Your task to perform on an android device: turn on showing notifications on the lock screen Image 0: 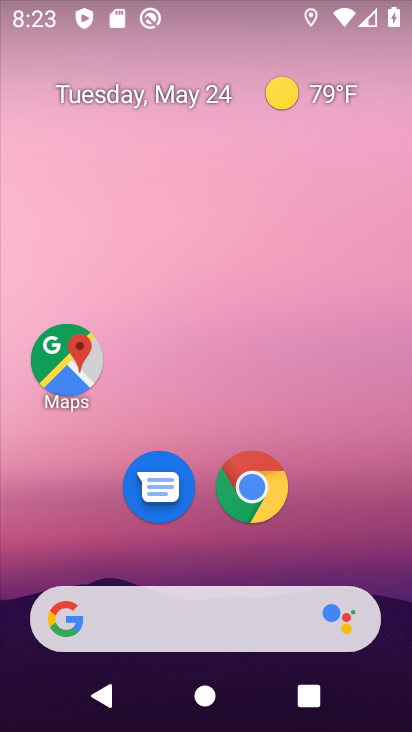
Step 0: drag from (309, 538) to (337, 146)
Your task to perform on an android device: turn on showing notifications on the lock screen Image 1: 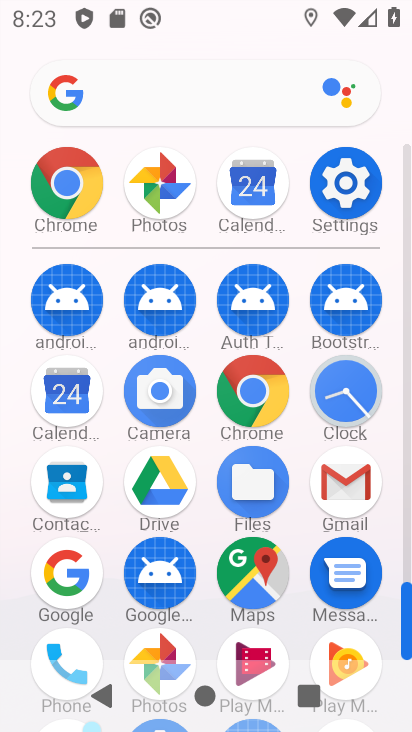
Step 1: click (362, 178)
Your task to perform on an android device: turn on showing notifications on the lock screen Image 2: 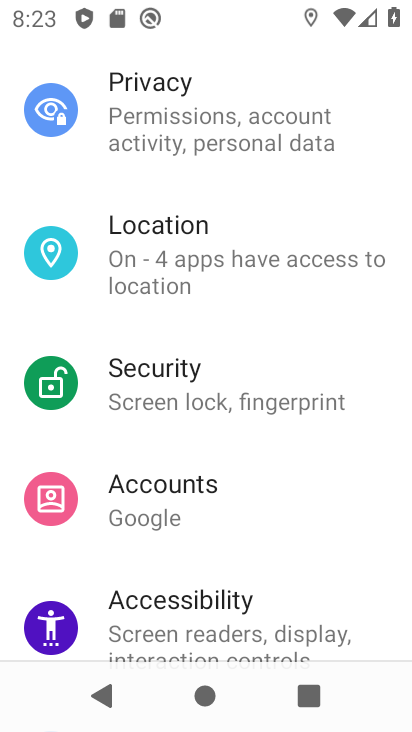
Step 2: drag from (316, 155) to (260, 587)
Your task to perform on an android device: turn on showing notifications on the lock screen Image 3: 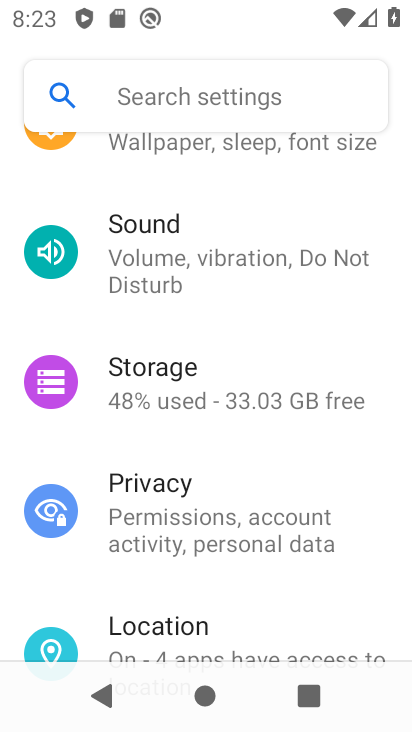
Step 3: drag from (310, 222) to (250, 602)
Your task to perform on an android device: turn on showing notifications on the lock screen Image 4: 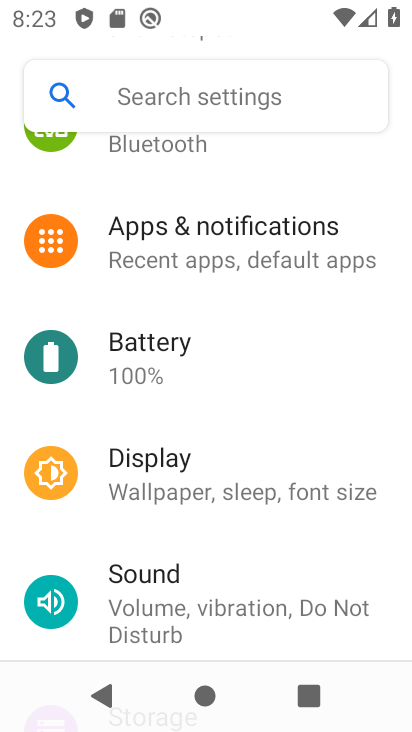
Step 4: click (202, 229)
Your task to perform on an android device: turn on showing notifications on the lock screen Image 5: 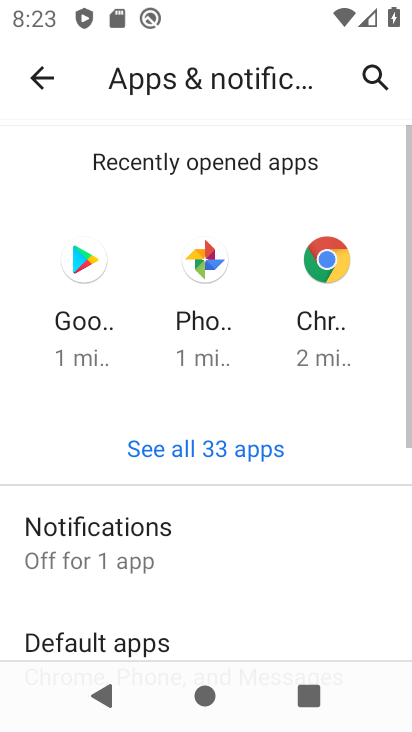
Step 5: click (97, 537)
Your task to perform on an android device: turn on showing notifications on the lock screen Image 6: 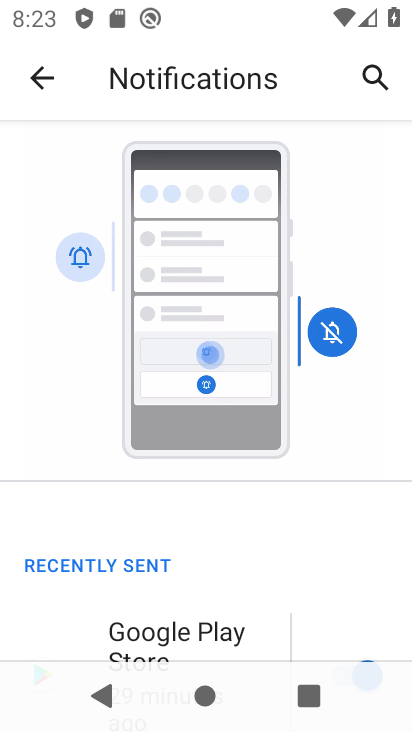
Step 6: drag from (253, 585) to (360, 142)
Your task to perform on an android device: turn on showing notifications on the lock screen Image 7: 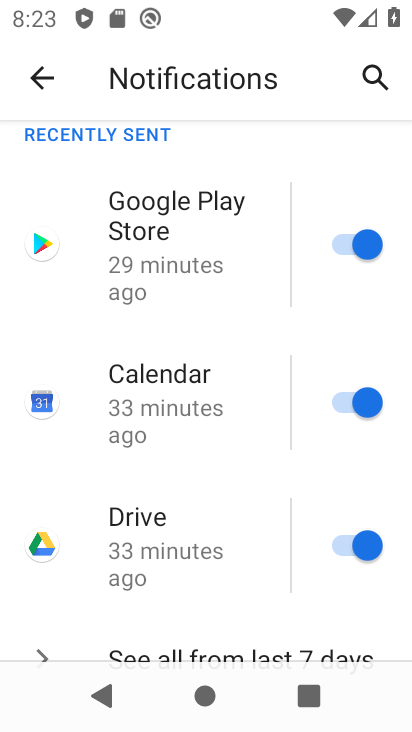
Step 7: drag from (284, 600) to (296, 87)
Your task to perform on an android device: turn on showing notifications on the lock screen Image 8: 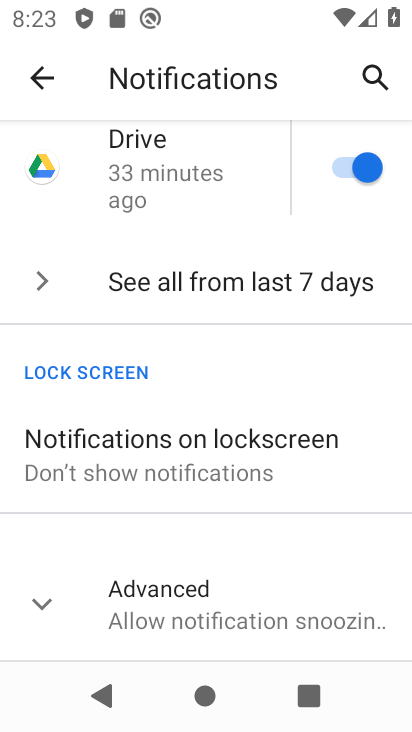
Step 8: click (118, 478)
Your task to perform on an android device: turn on showing notifications on the lock screen Image 9: 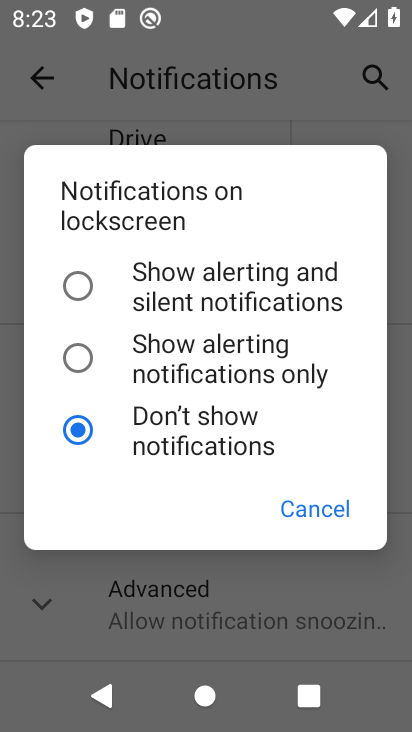
Step 9: click (170, 274)
Your task to perform on an android device: turn on showing notifications on the lock screen Image 10: 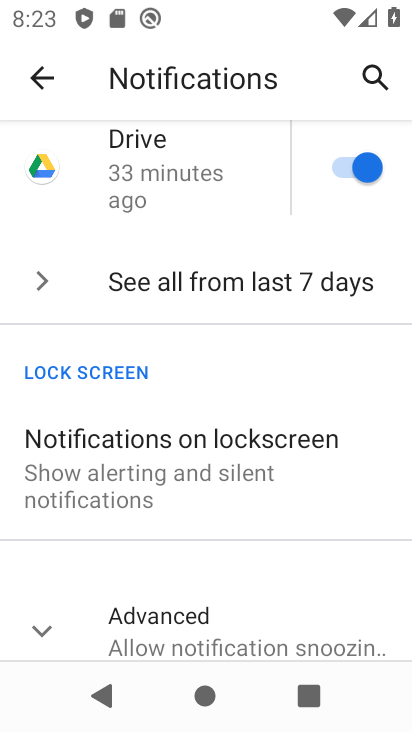
Step 10: task complete